Your task to perform on an android device: check storage Image 0: 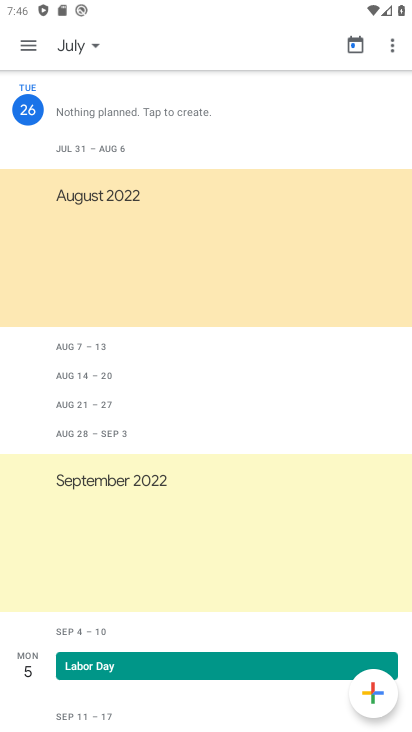
Step 0: press home button
Your task to perform on an android device: check storage Image 1: 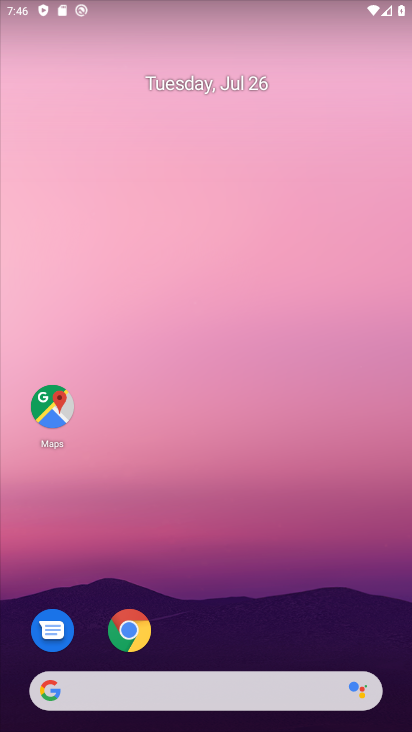
Step 1: drag from (177, 692) to (235, 22)
Your task to perform on an android device: check storage Image 2: 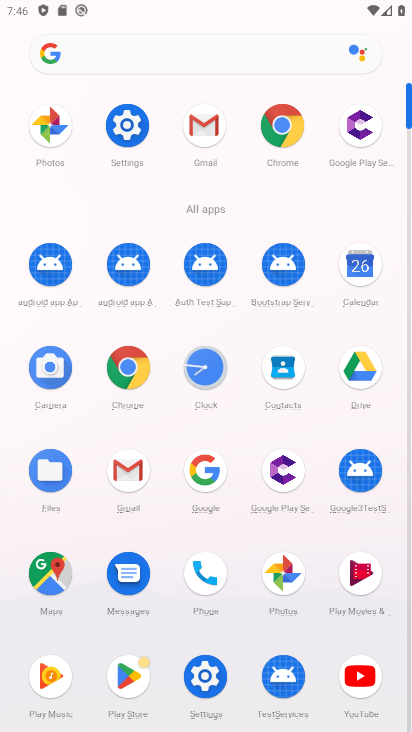
Step 2: click (128, 121)
Your task to perform on an android device: check storage Image 3: 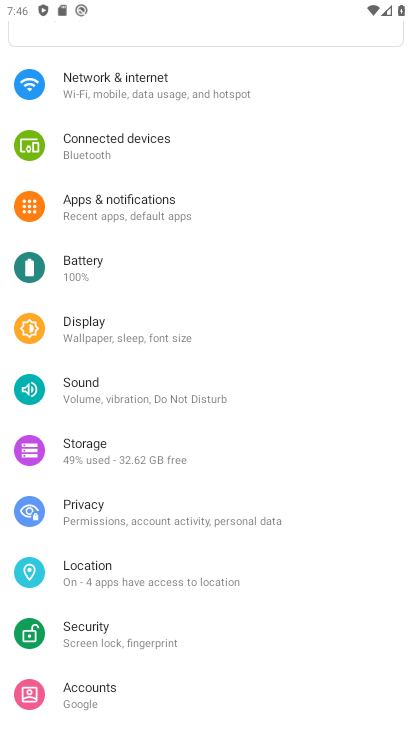
Step 3: click (107, 457)
Your task to perform on an android device: check storage Image 4: 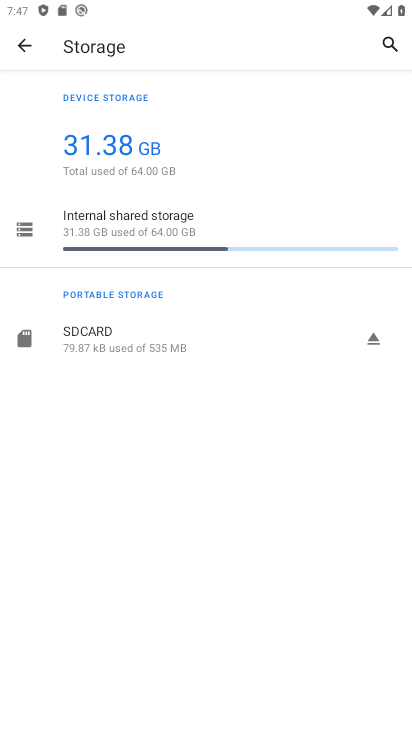
Step 4: task complete